Your task to perform on an android device: Open the stopwatch Image 0: 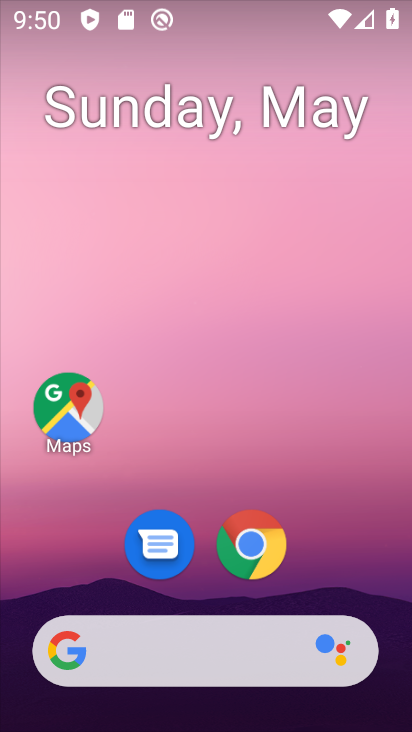
Step 0: drag from (382, 552) to (323, 231)
Your task to perform on an android device: Open the stopwatch Image 1: 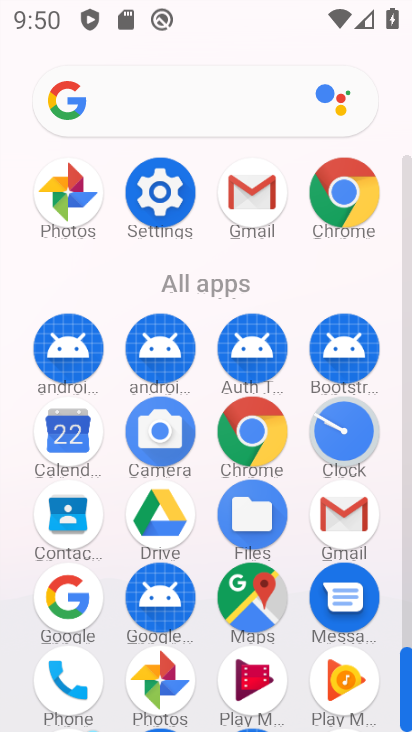
Step 1: click (339, 437)
Your task to perform on an android device: Open the stopwatch Image 2: 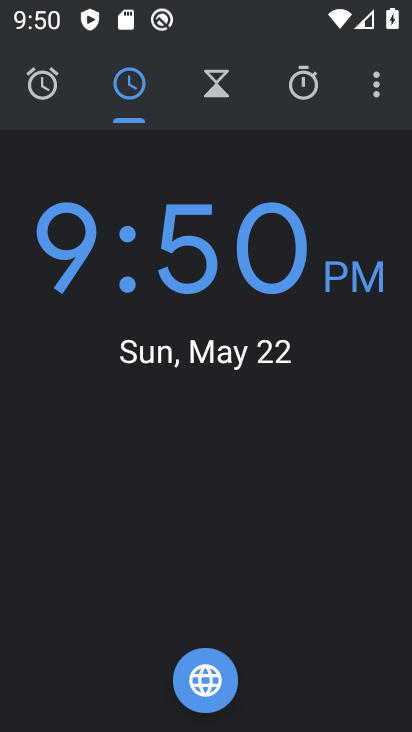
Step 2: click (315, 103)
Your task to perform on an android device: Open the stopwatch Image 3: 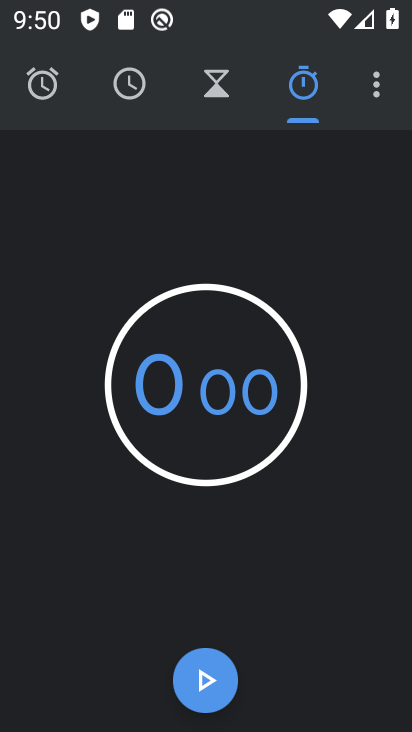
Step 3: task complete